Your task to perform on an android device: Is it going to rain tomorrow? Image 0: 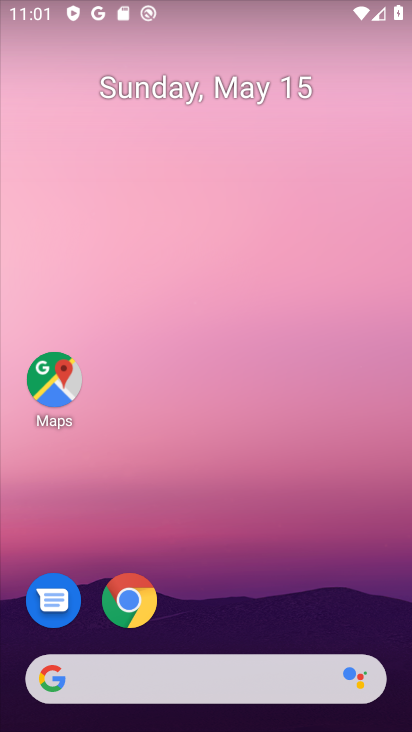
Step 0: drag from (211, 662) to (188, 2)
Your task to perform on an android device: Is it going to rain tomorrow? Image 1: 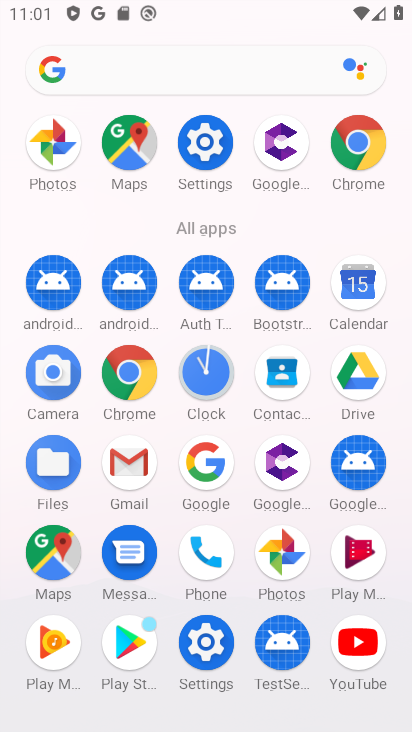
Step 1: click (207, 475)
Your task to perform on an android device: Is it going to rain tomorrow? Image 2: 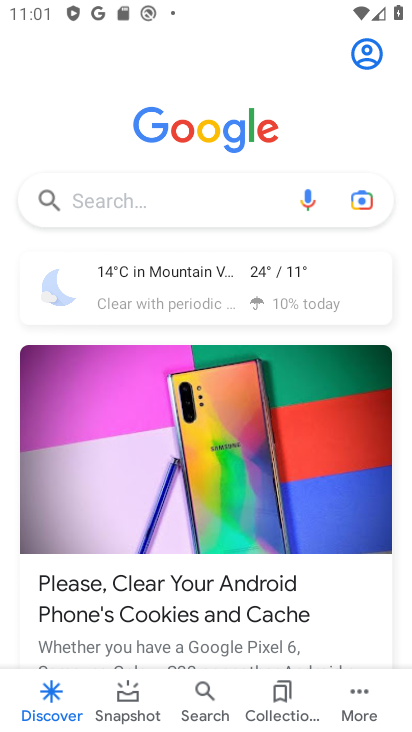
Step 2: click (264, 274)
Your task to perform on an android device: Is it going to rain tomorrow? Image 3: 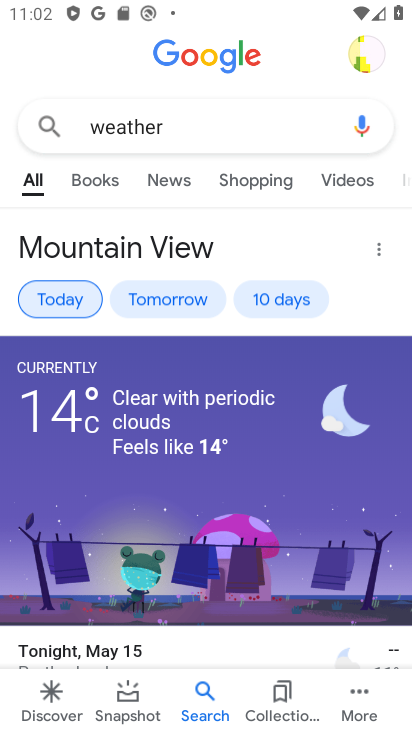
Step 3: click (164, 301)
Your task to perform on an android device: Is it going to rain tomorrow? Image 4: 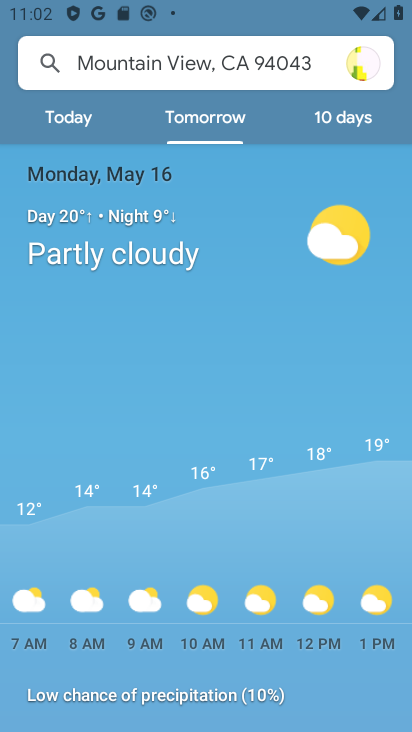
Step 4: task complete